Your task to perform on an android device: set the stopwatch Image 0: 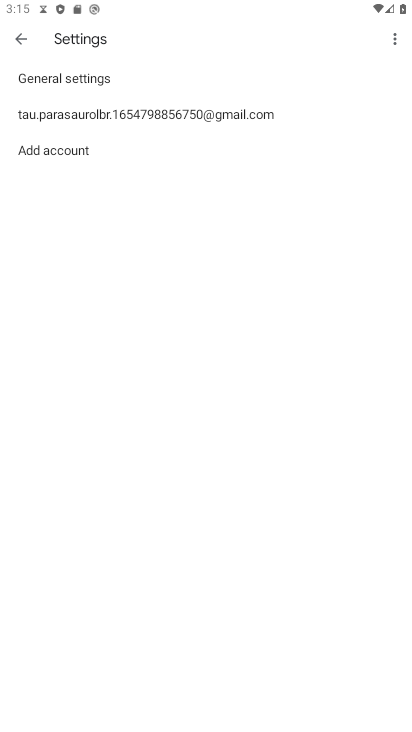
Step 0: press home button
Your task to perform on an android device: set the stopwatch Image 1: 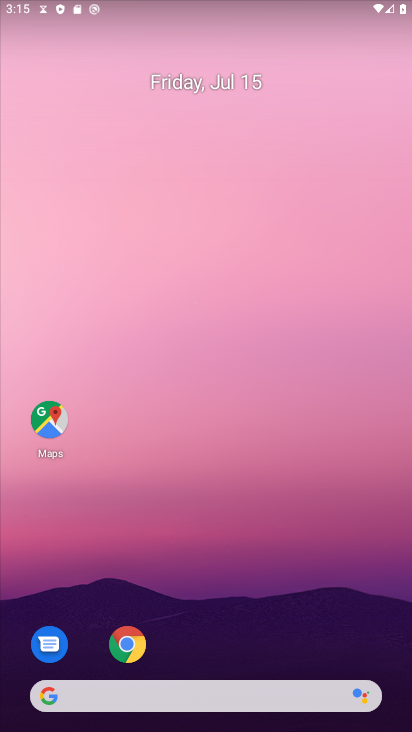
Step 1: drag from (228, 704) to (217, 8)
Your task to perform on an android device: set the stopwatch Image 2: 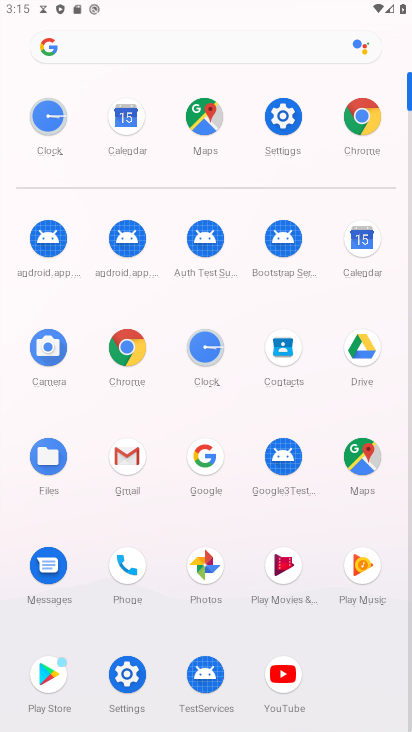
Step 2: click (198, 356)
Your task to perform on an android device: set the stopwatch Image 3: 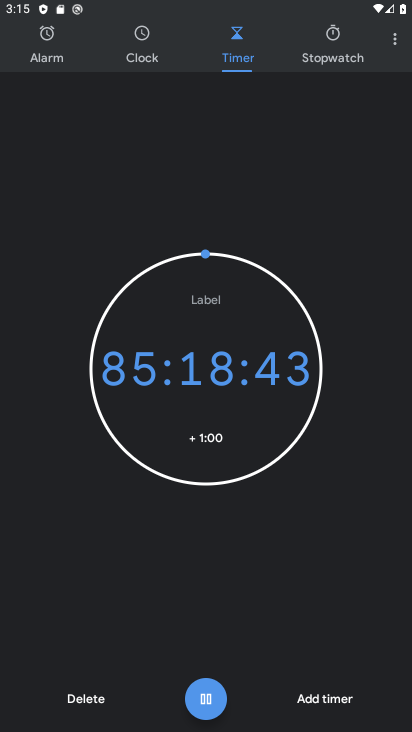
Step 3: click (335, 43)
Your task to perform on an android device: set the stopwatch Image 4: 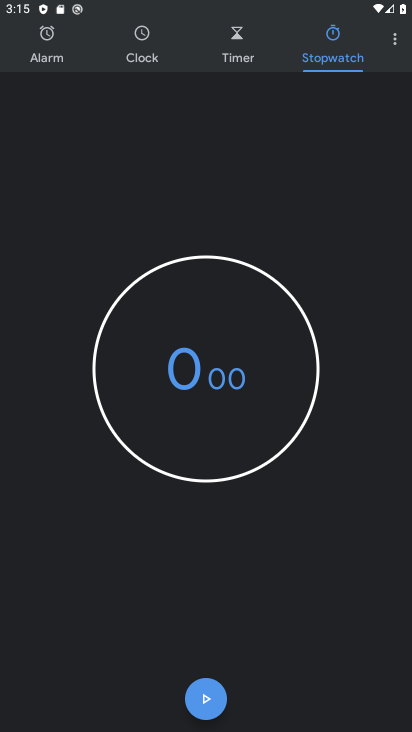
Step 4: click (224, 702)
Your task to perform on an android device: set the stopwatch Image 5: 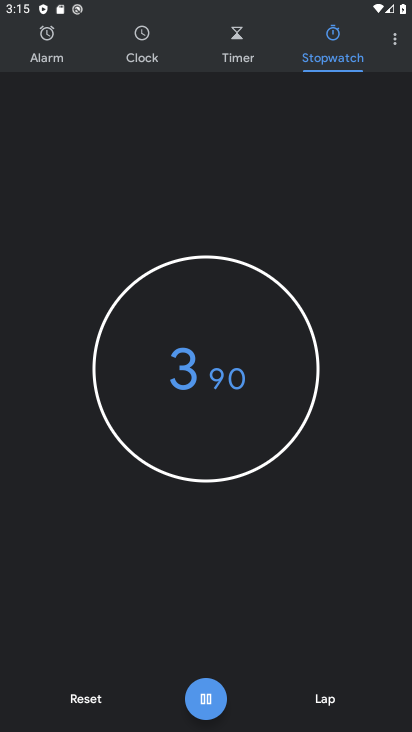
Step 5: task complete